Your task to perform on an android device: Go to Wikipedia Image 0: 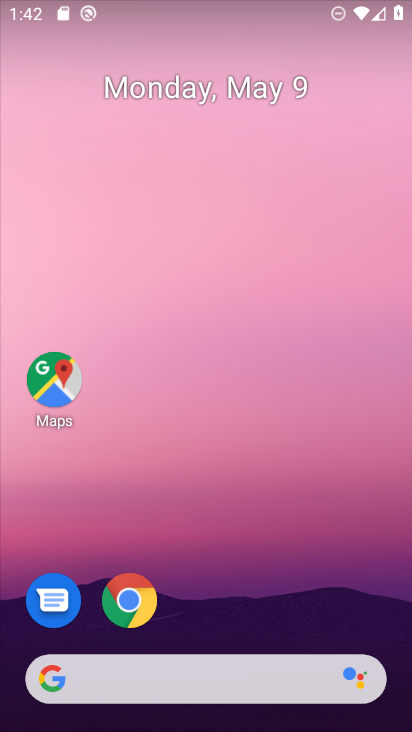
Step 0: click (134, 598)
Your task to perform on an android device: Go to Wikipedia Image 1: 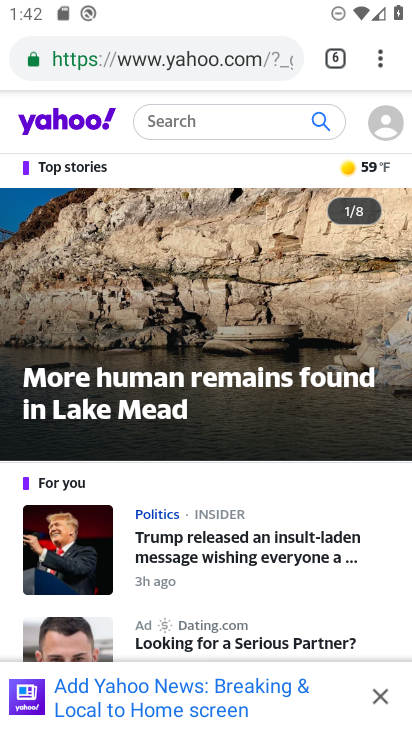
Step 1: drag from (381, 62) to (277, 127)
Your task to perform on an android device: Go to Wikipedia Image 2: 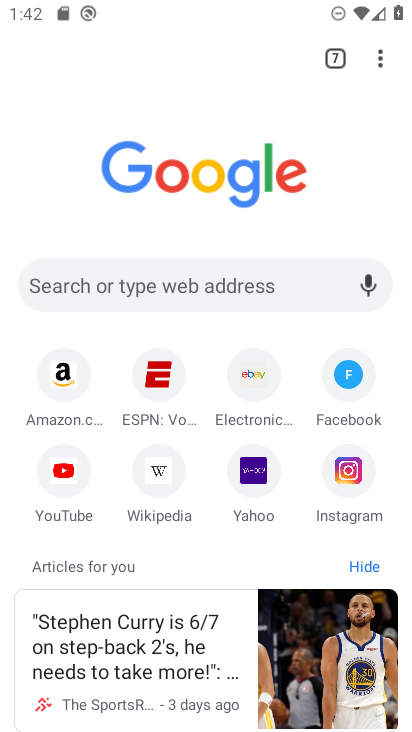
Step 2: click (162, 480)
Your task to perform on an android device: Go to Wikipedia Image 3: 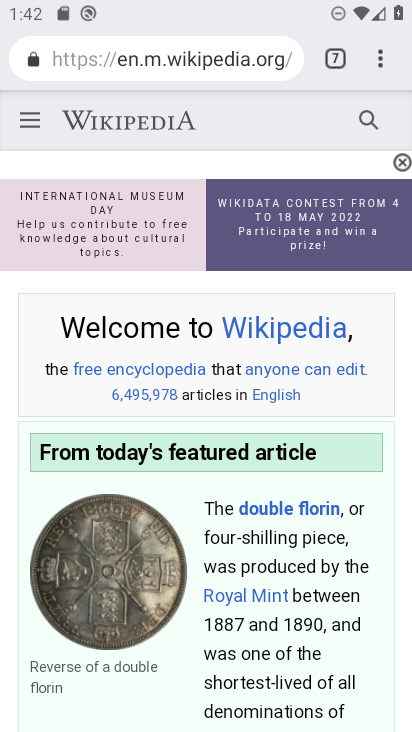
Step 3: task complete